Your task to perform on an android device: Open notification settings Image 0: 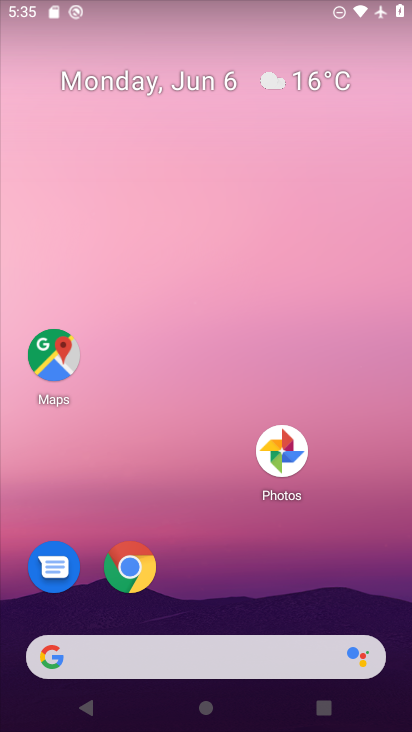
Step 0: drag from (199, 688) to (115, 107)
Your task to perform on an android device: Open notification settings Image 1: 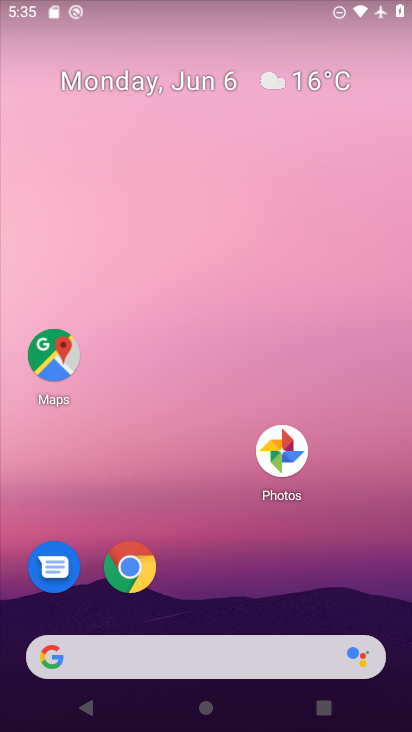
Step 1: drag from (255, 693) to (179, 186)
Your task to perform on an android device: Open notification settings Image 2: 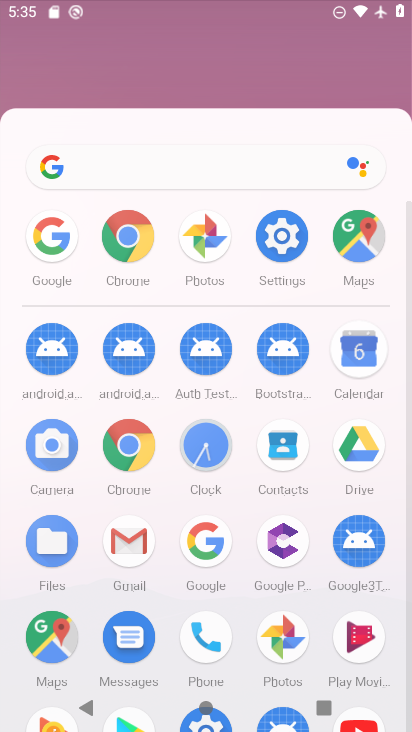
Step 2: drag from (225, 483) to (112, 25)
Your task to perform on an android device: Open notification settings Image 3: 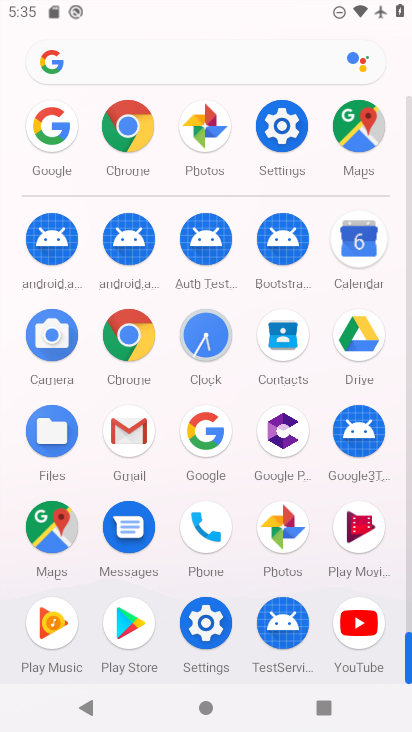
Step 3: click (120, 418)
Your task to perform on an android device: Open notification settings Image 4: 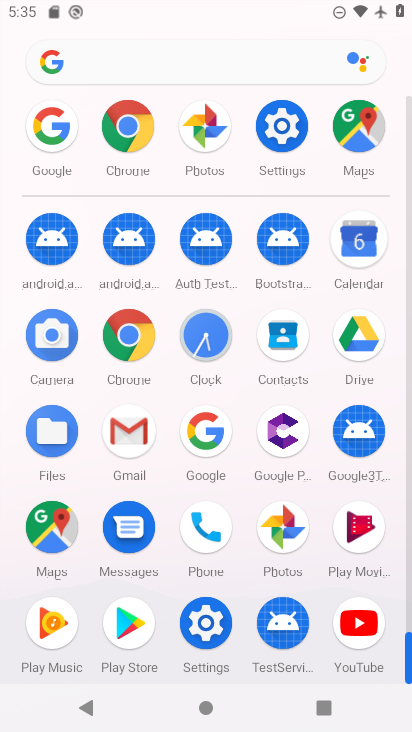
Step 4: click (123, 420)
Your task to perform on an android device: Open notification settings Image 5: 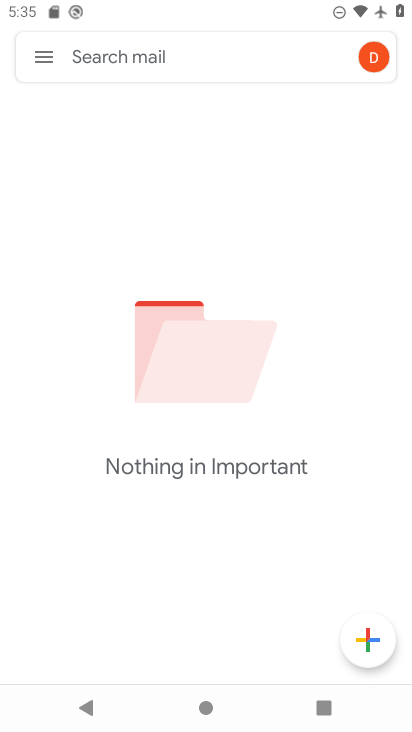
Step 5: click (45, 59)
Your task to perform on an android device: Open notification settings Image 6: 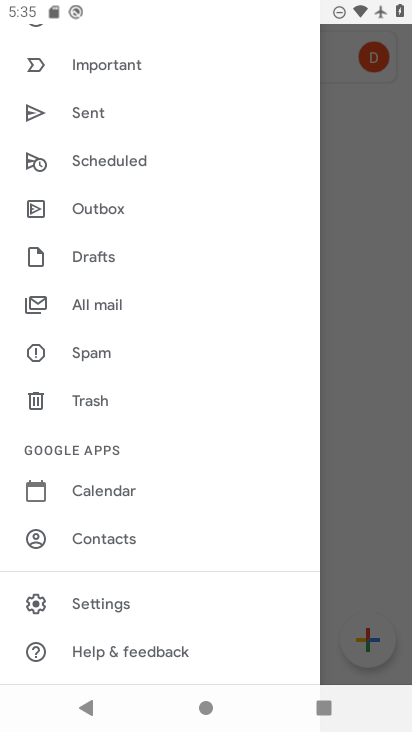
Step 6: click (97, 594)
Your task to perform on an android device: Open notification settings Image 7: 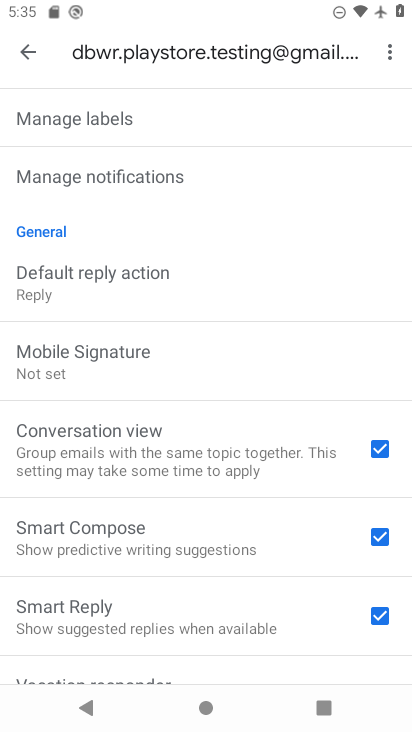
Step 7: drag from (78, 513) to (70, 152)
Your task to perform on an android device: Open notification settings Image 8: 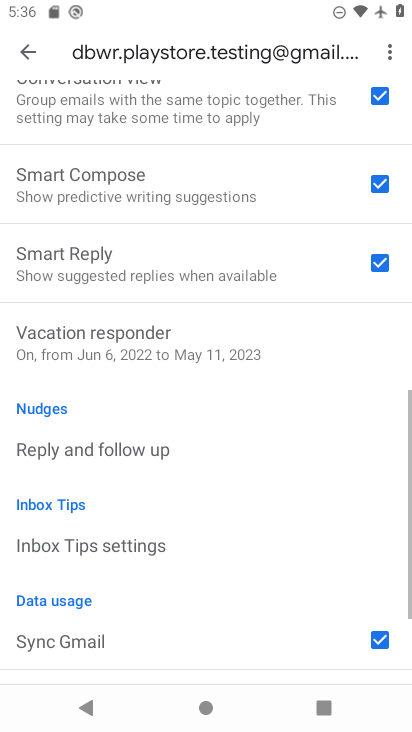
Step 8: drag from (109, 451) to (85, 116)
Your task to perform on an android device: Open notification settings Image 9: 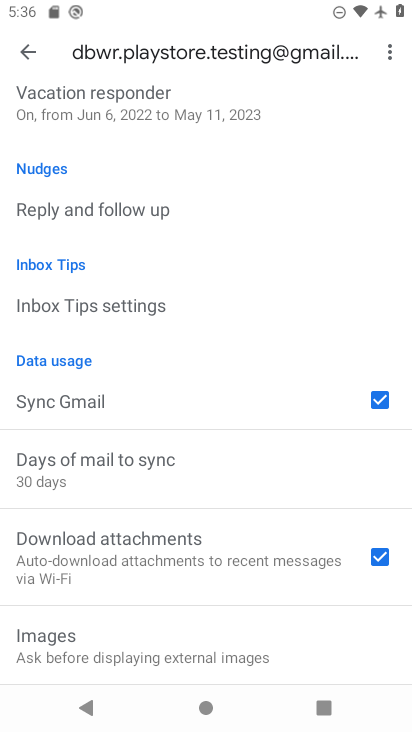
Step 9: drag from (72, 583) to (79, 181)
Your task to perform on an android device: Open notification settings Image 10: 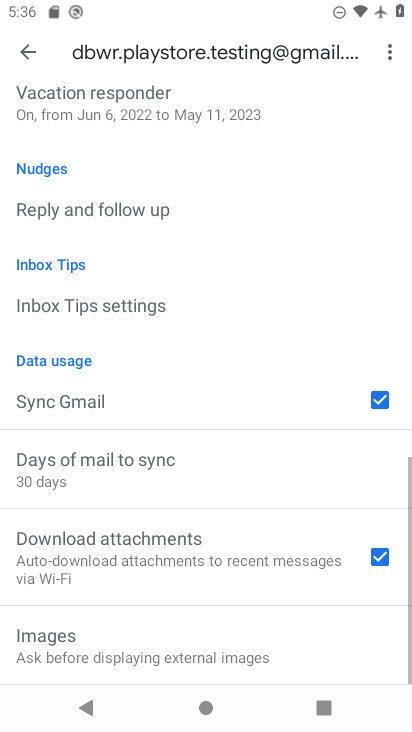
Step 10: drag from (97, 224) to (143, 724)
Your task to perform on an android device: Open notification settings Image 11: 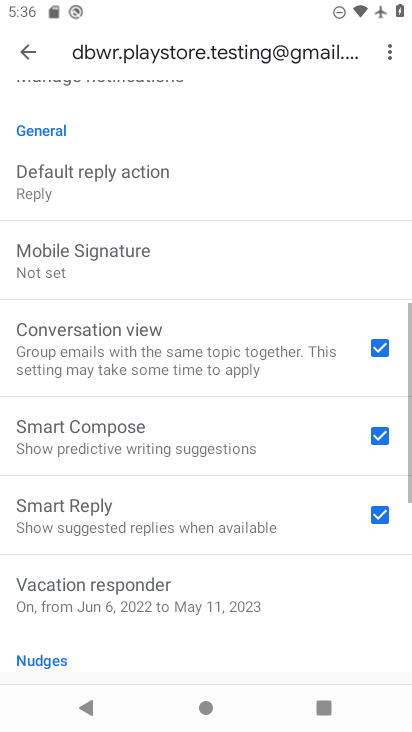
Step 11: drag from (143, 148) to (152, 528)
Your task to perform on an android device: Open notification settings Image 12: 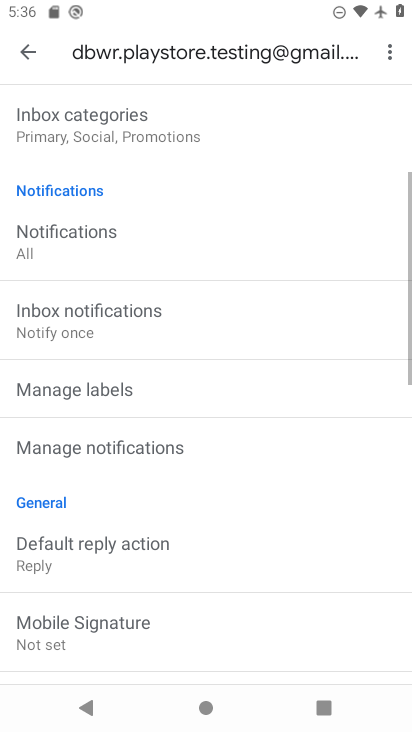
Step 12: drag from (32, 265) to (83, 573)
Your task to perform on an android device: Open notification settings Image 13: 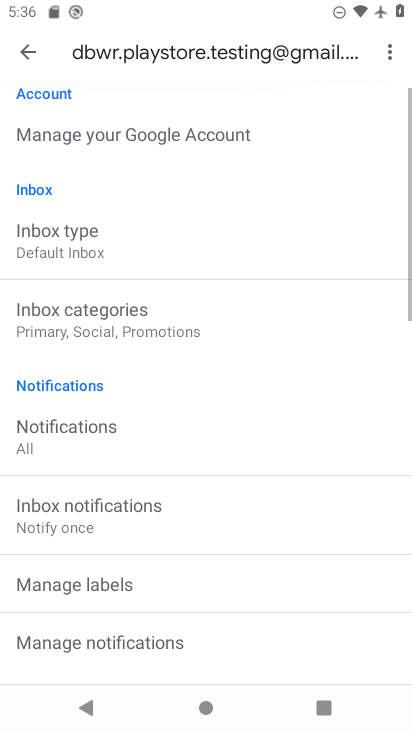
Step 13: drag from (63, 184) to (170, 581)
Your task to perform on an android device: Open notification settings Image 14: 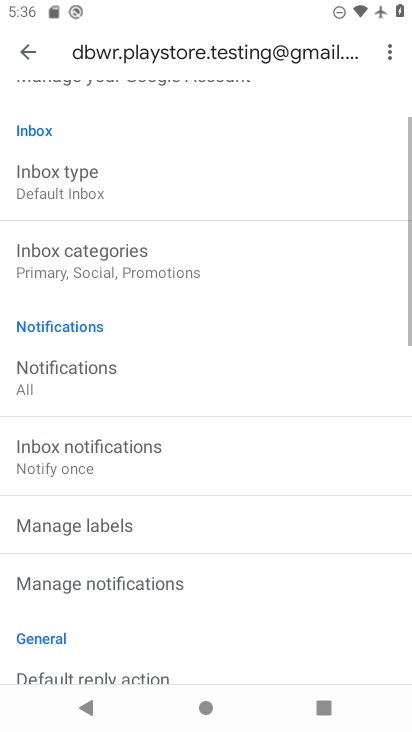
Step 14: drag from (113, 146) to (191, 478)
Your task to perform on an android device: Open notification settings Image 15: 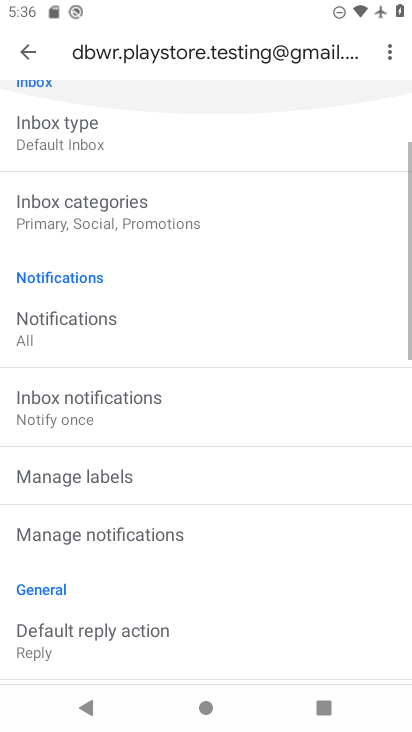
Step 15: drag from (2, 52) to (121, 561)
Your task to perform on an android device: Open notification settings Image 16: 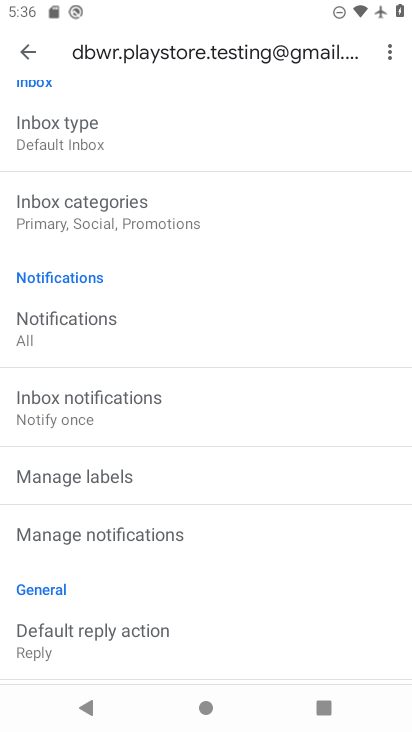
Step 16: drag from (105, 239) to (132, 554)
Your task to perform on an android device: Open notification settings Image 17: 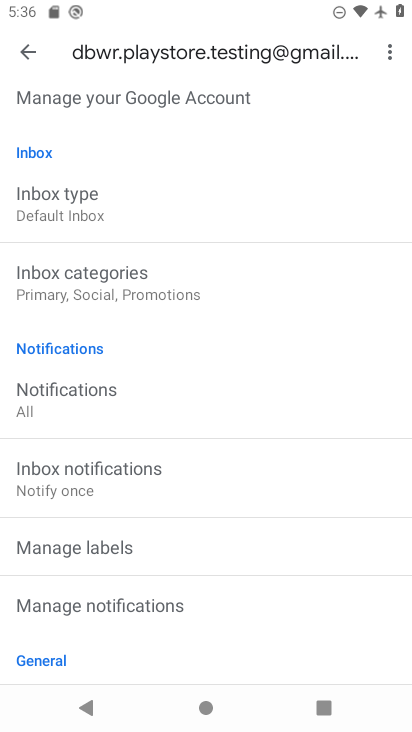
Step 17: click (30, 393)
Your task to perform on an android device: Open notification settings Image 18: 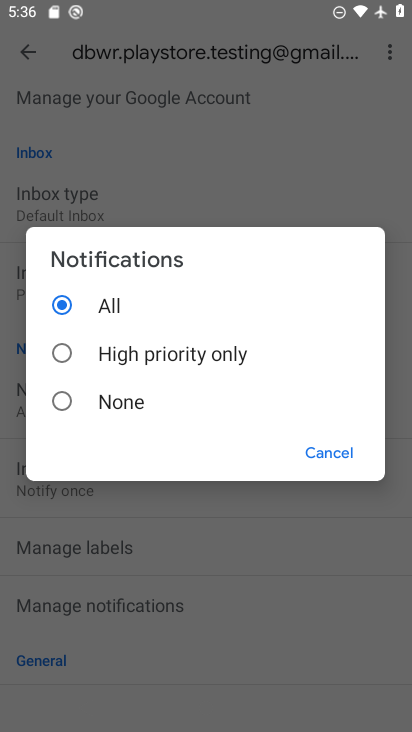
Step 18: task complete